Your task to perform on an android device: open app "VLC for Android" (install if not already installed) Image 0: 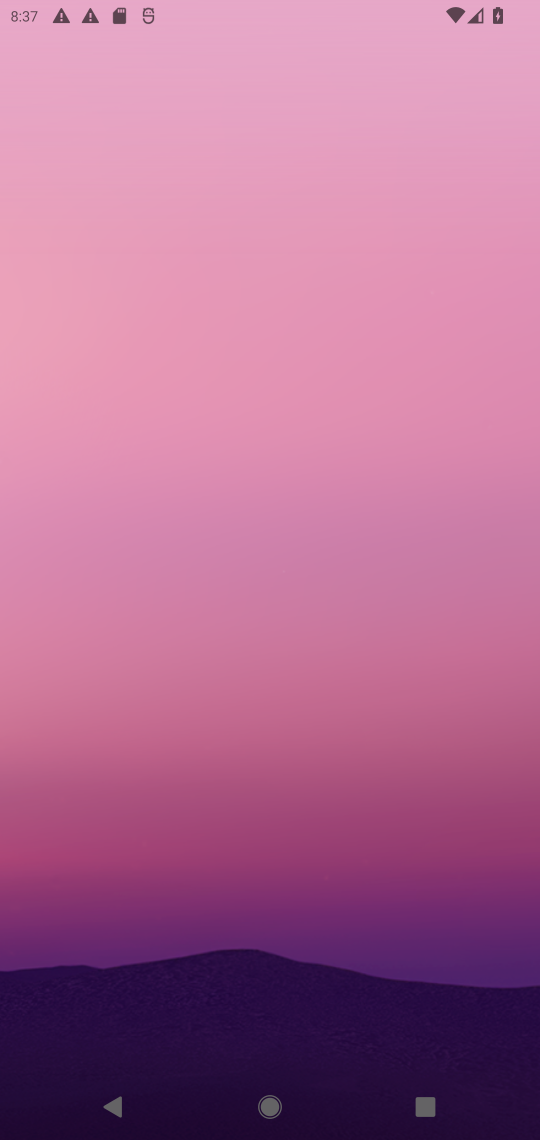
Step 0: press home button
Your task to perform on an android device: open app "VLC for Android" (install if not already installed) Image 1: 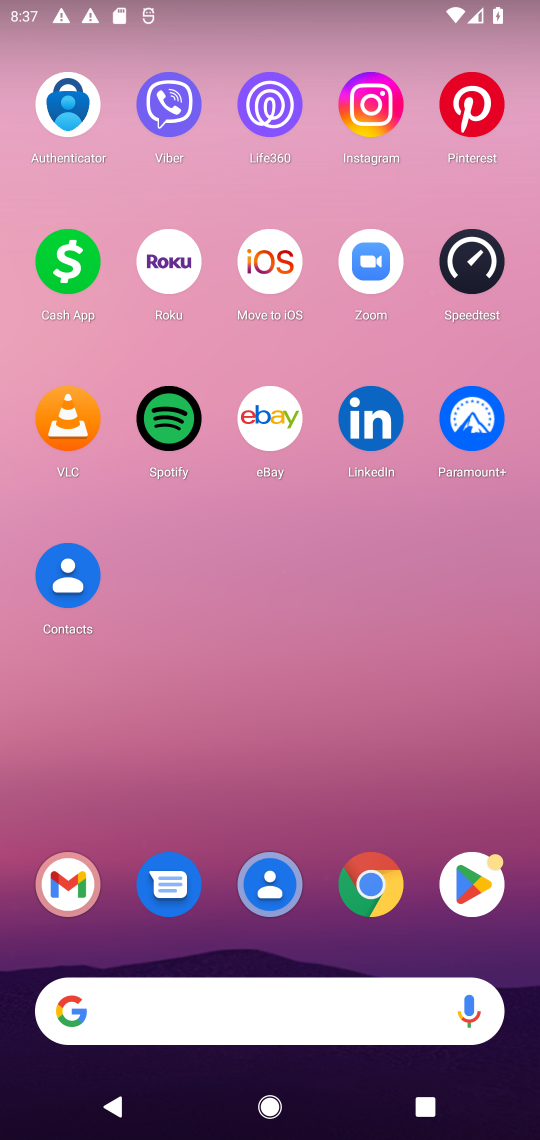
Step 1: click (476, 879)
Your task to perform on an android device: open app "VLC for Android" (install if not already installed) Image 2: 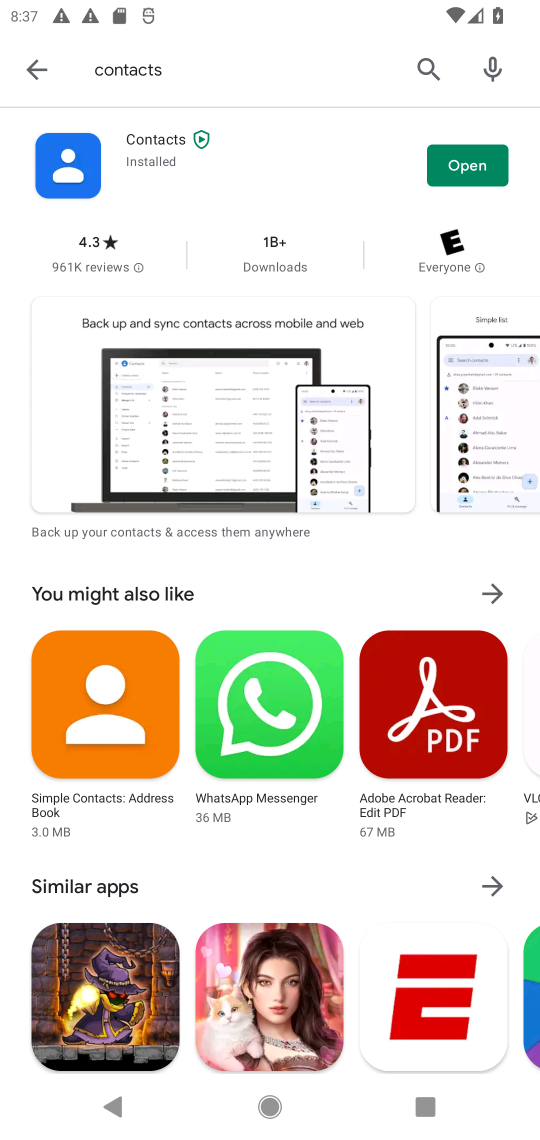
Step 2: click (422, 66)
Your task to perform on an android device: open app "VLC for Android" (install if not already installed) Image 3: 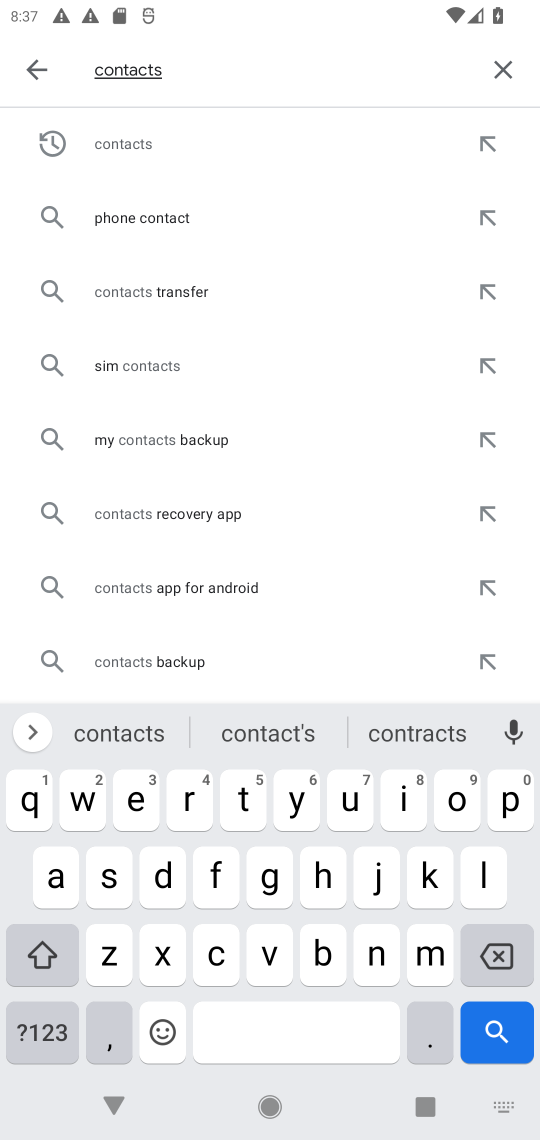
Step 3: click (513, 66)
Your task to perform on an android device: open app "VLC for Android" (install if not already installed) Image 4: 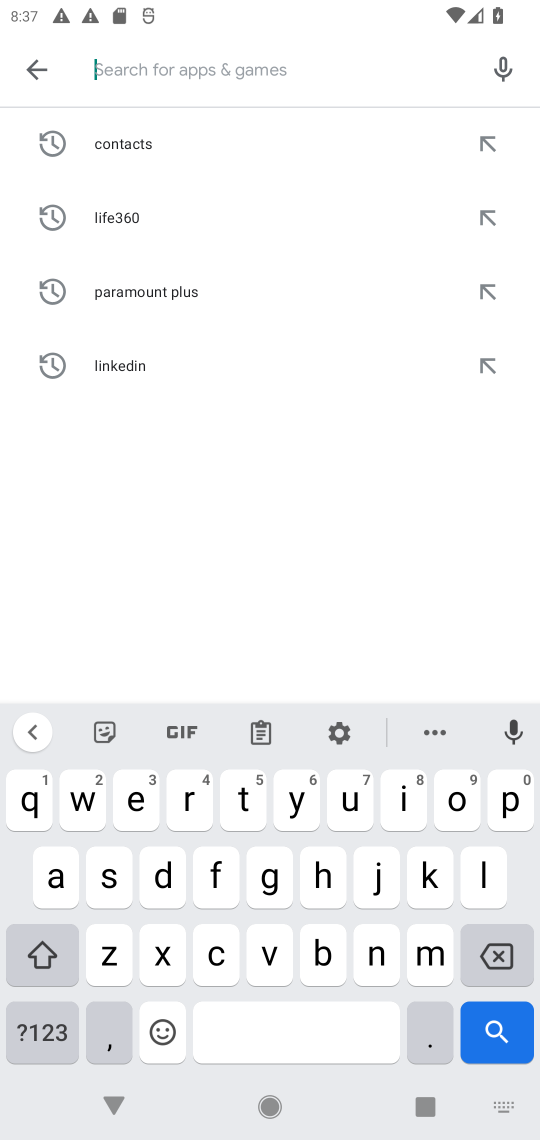
Step 4: click (272, 968)
Your task to perform on an android device: open app "VLC for Android" (install if not already installed) Image 5: 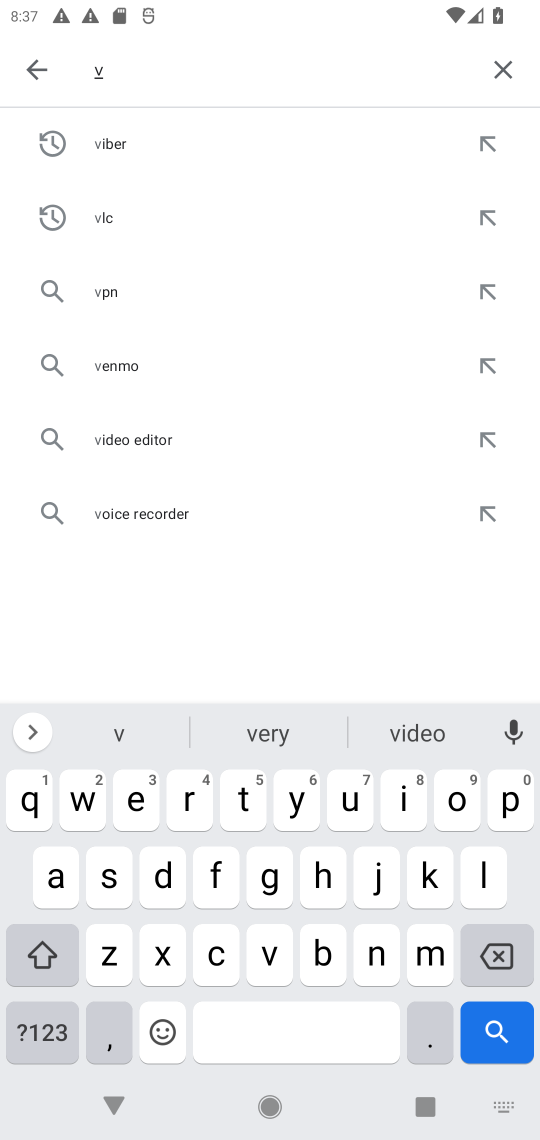
Step 5: click (488, 874)
Your task to perform on an android device: open app "VLC for Android" (install if not already installed) Image 6: 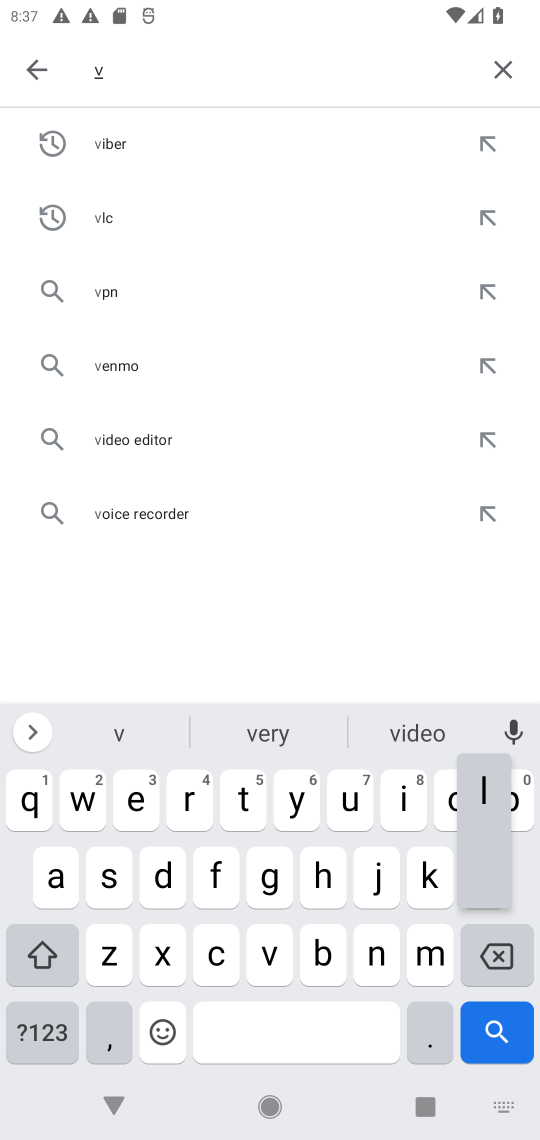
Step 6: click (199, 962)
Your task to perform on an android device: open app "VLC for Android" (install if not already installed) Image 7: 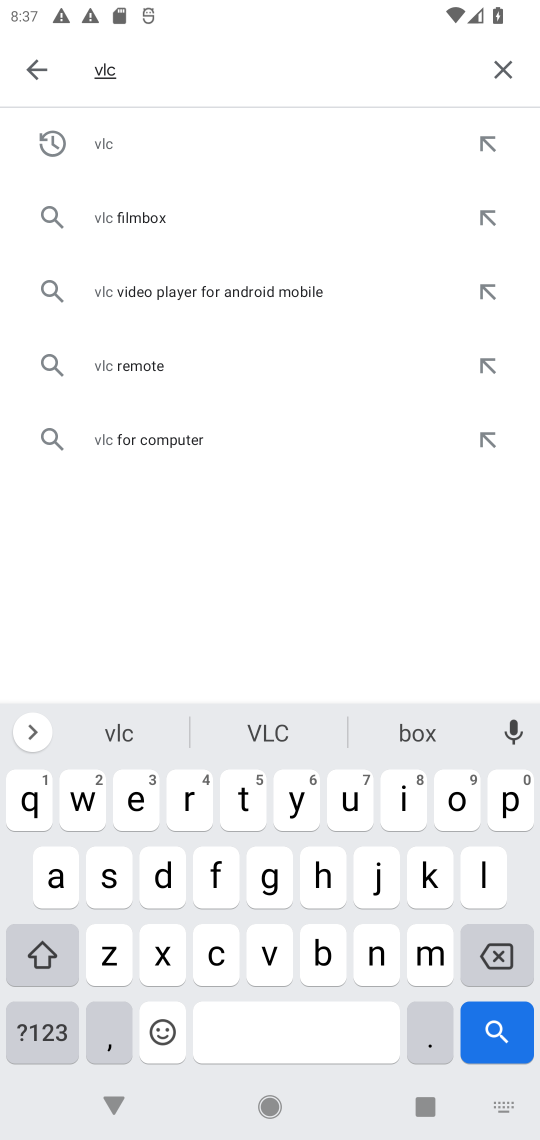
Step 7: click (115, 145)
Your task to perform on an android device: open app "VLC for Android" (install if not already installed) Image 8: 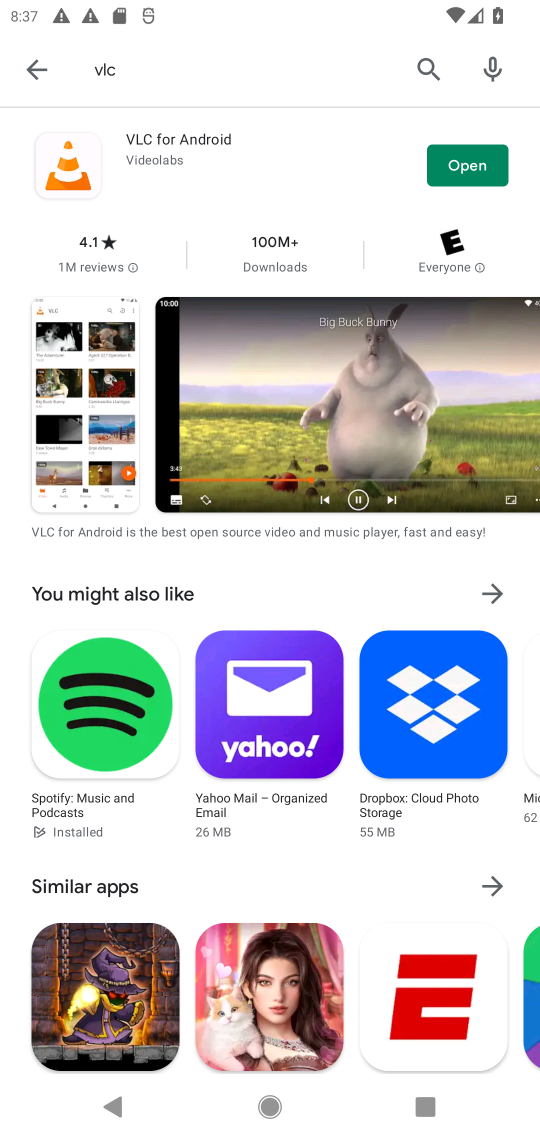
Step 8: click (470, 178)
Your task to perform on an android device: open app "VLC for Android" (install if not already installed) Image 9: 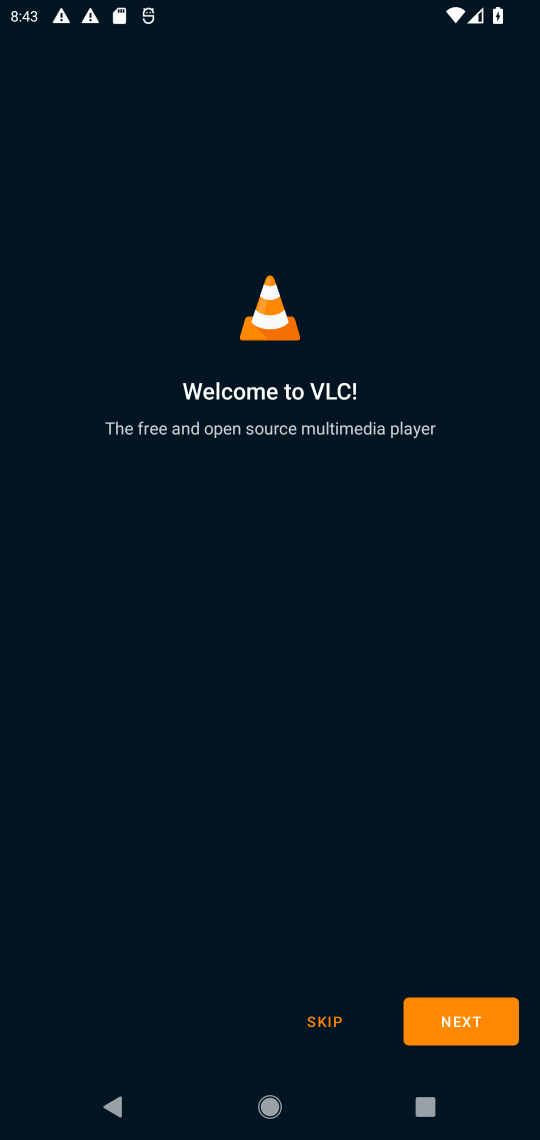
Step 9: task complete